Your task to perform on an android device: find photos in the google photos app Image 0: 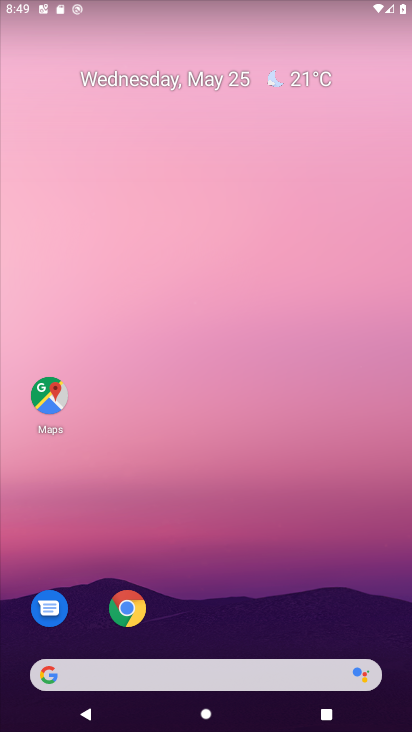
Step 0: drag from (240, 720) to (256, 122)
Your task to perform on an android device: find photos in the google photos app Image 1: 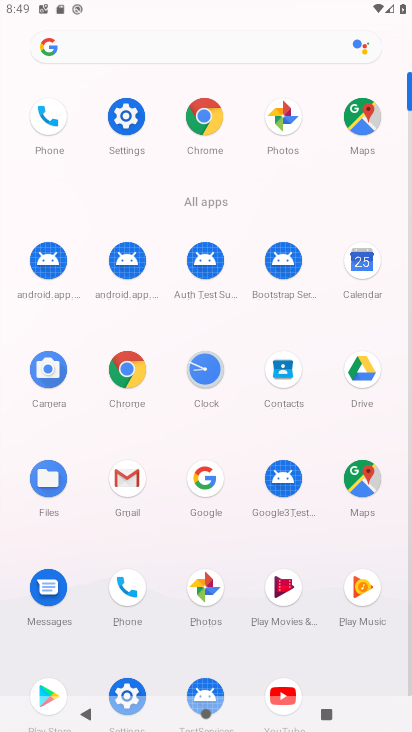
Step 1: click (206, 591)
Your task to perform on an android device: find photos in the google photos app Image 2: 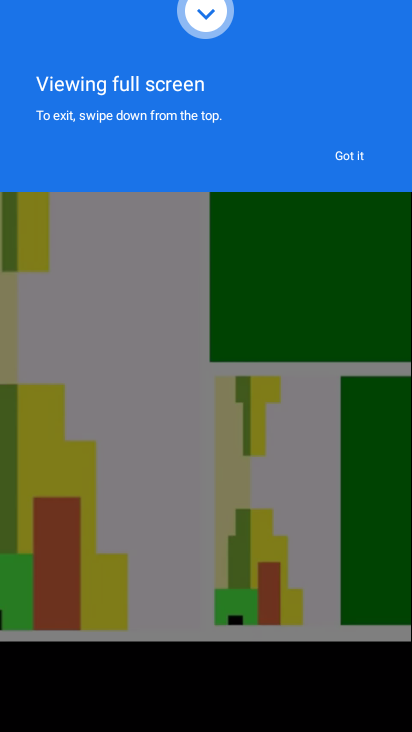
Step 2: click (278, 444)
Your task to perform on an android device: find photos in the google photos app Image 3: 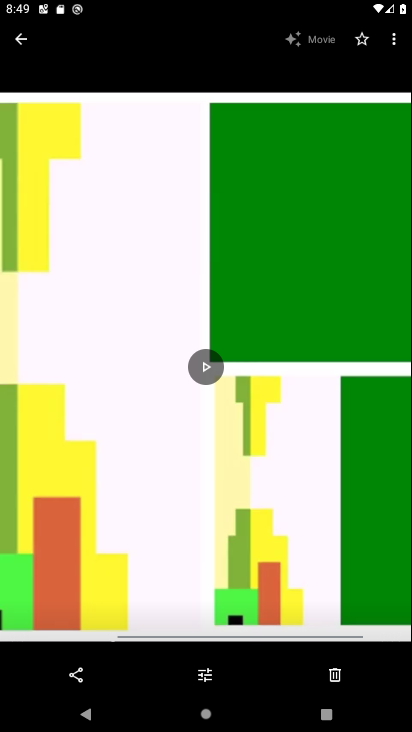
Step 3: click (19, 38)
Your task to perform on an android device: find photos in the google photos app Image 4: 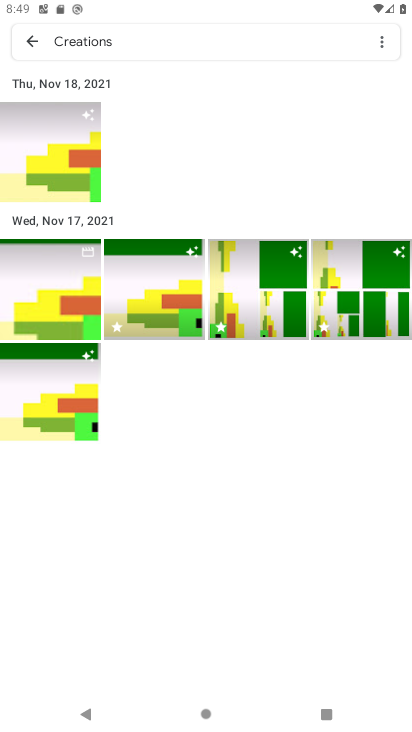
Step 4: task complete